Your task to perform on an android device: turn on location history Image 0: 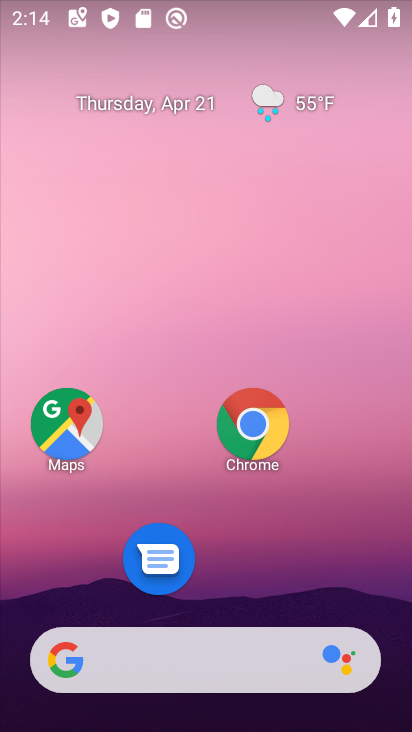
Step 0: drag from (280, 578) to (289, 93)
Your task to perform on an android device: turn on location history Image 1: 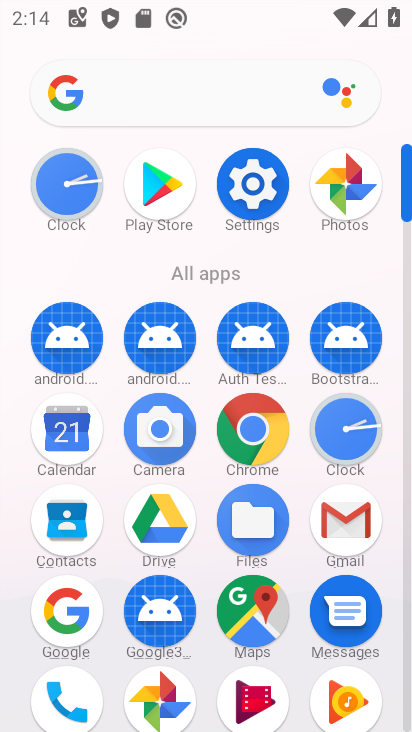
Step 1: click (253, 179)
Your task to perform on an android device: turn on location history Image 2: 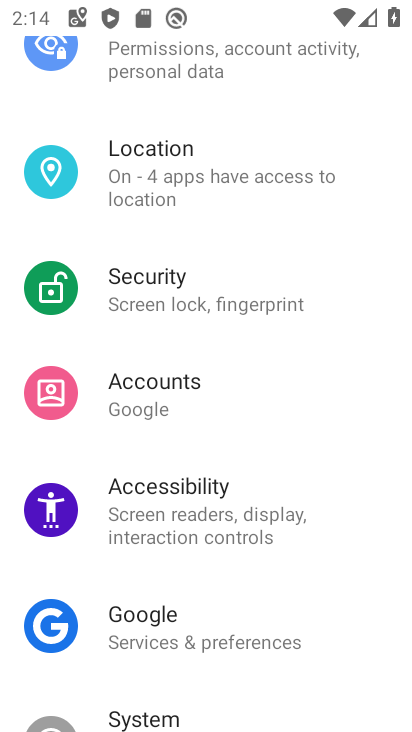
Step 2: click (187, 200)
Your task to perform on an android device: turn on location history Image 3: 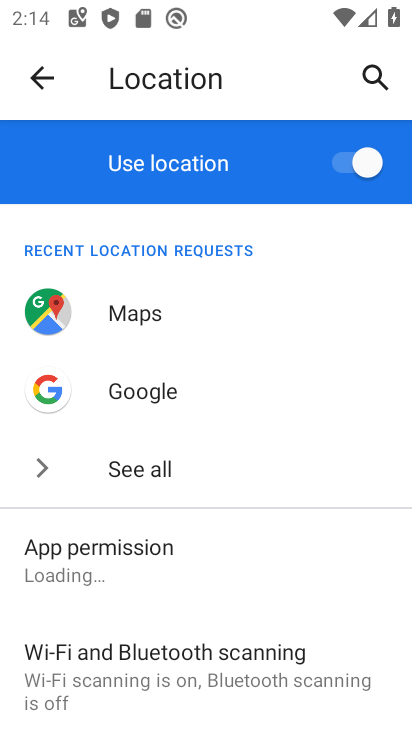
Step 3: drag from (238, 544) to (222, 156)
Your task to perform on an android device: turn on location history Image 4: 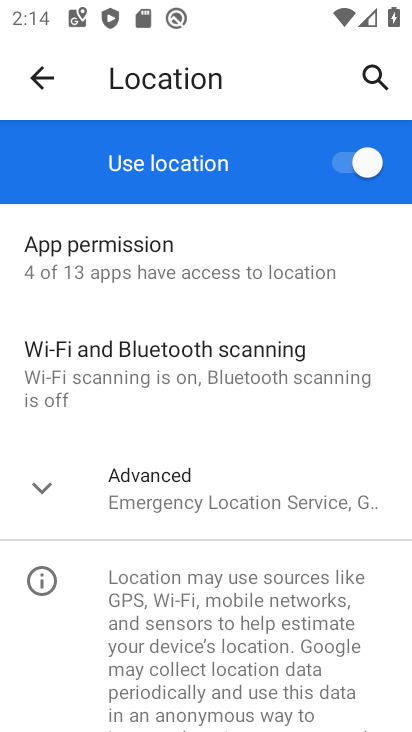
Step 4: click (131, 492)
Your task to perform on an android device: turn on location history Image 5: 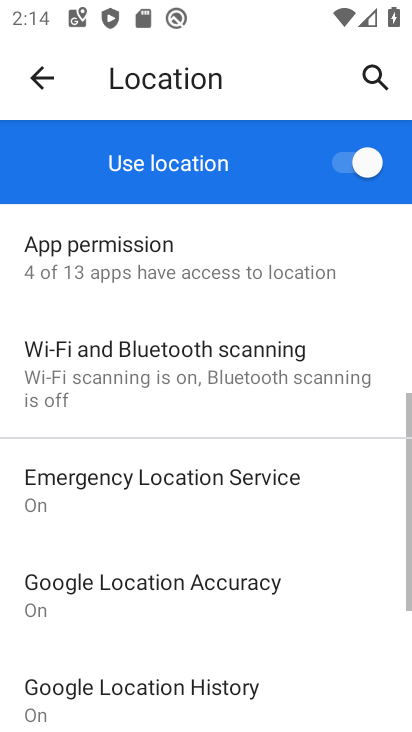
Step 5: task complete